Your task to perform on an android device: Go to Amazon Image 0: 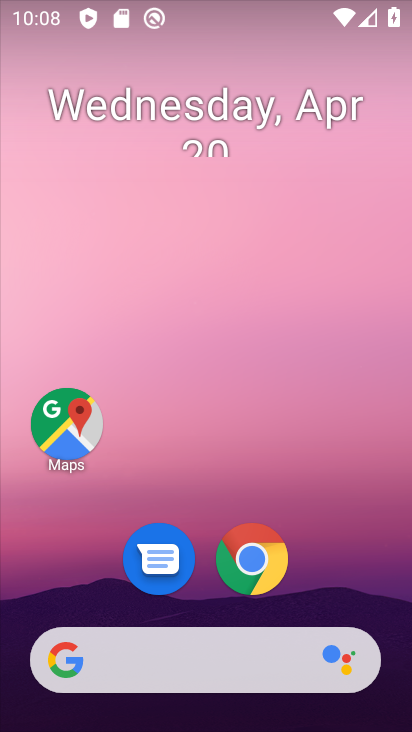
Step 0: click (250, 556)
Your task to perform on an android device: Go to Amazon Image 1: 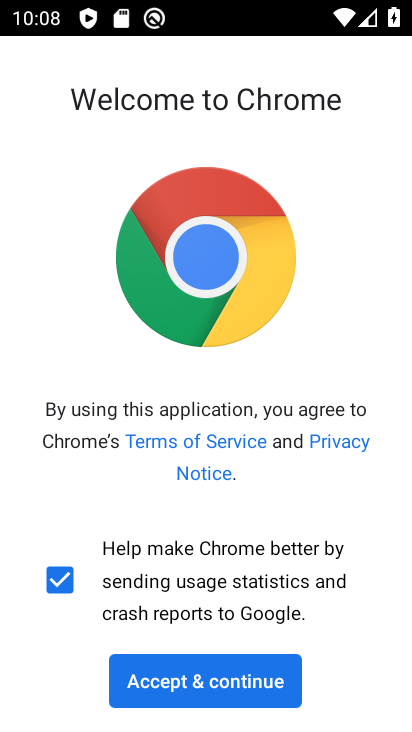
Step 1: click (204, 680)
Your task to perform on an android device: Go to Amazon Image 2: 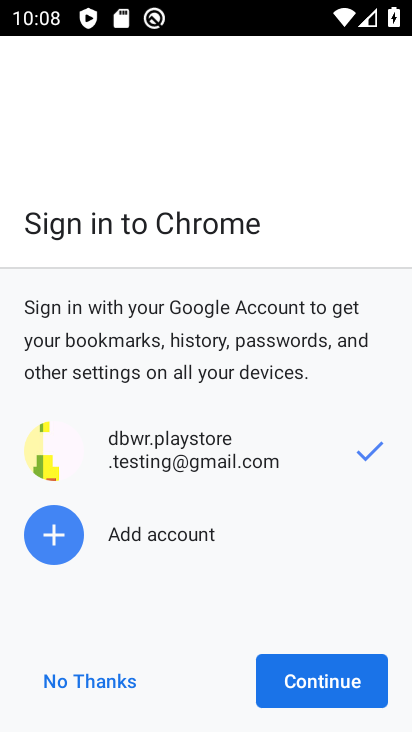
Step 2: click (299, 678)
Your task to perform on an android device: Go to Amazon Image 3: 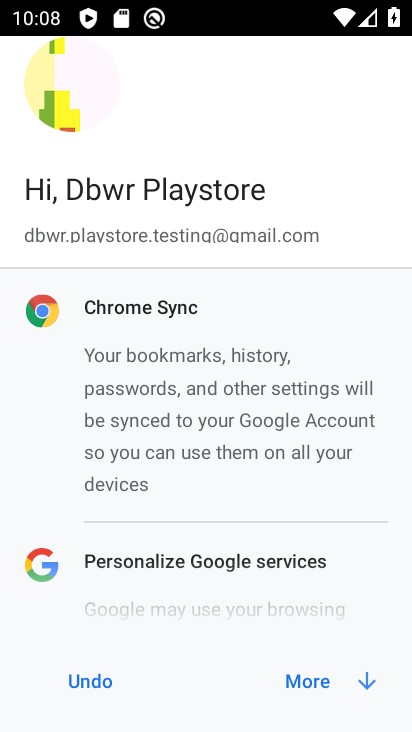
Step 3: click (299, 678)
Your task to perform on an android device: Go to Amazon Image 4: 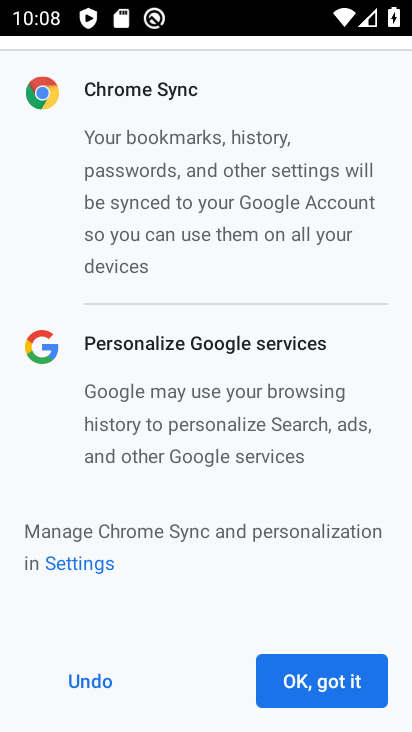
Step 4: click (298, 681)
Your task to perform on an android device: Go to Amazon Image 5: 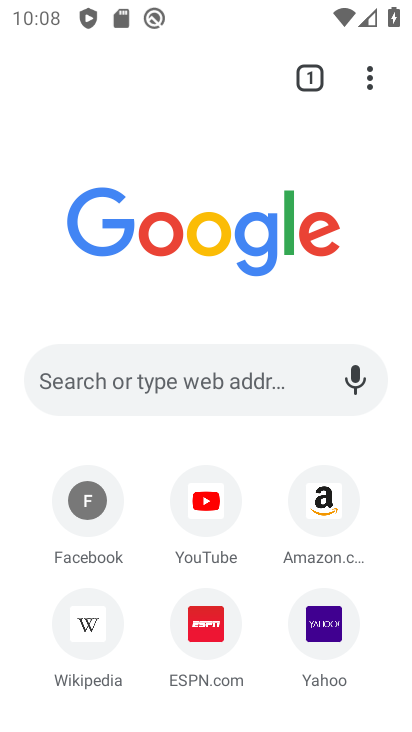
Step 5: click (319, 500)
Your task to perform on an android device: Go to Amazon Image 6: 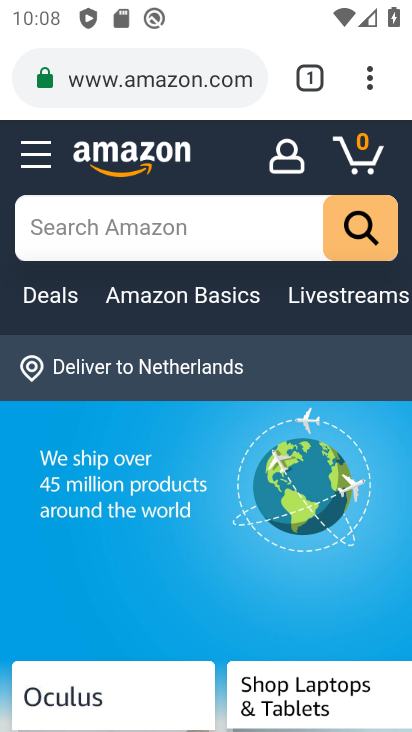
Step 6: task complete